Your task to perform on an android device: How do I get to the nearest Sprint Store? Image 0: 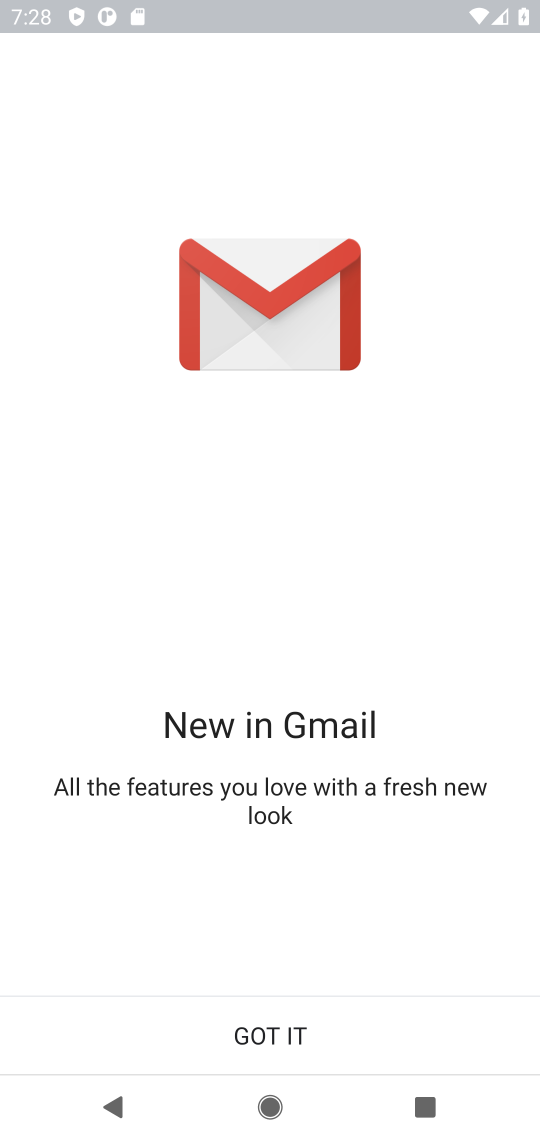
Step 0: press home button
Your task to perform on an android device: How do I get to the nearest Sprint Store? Image 1: 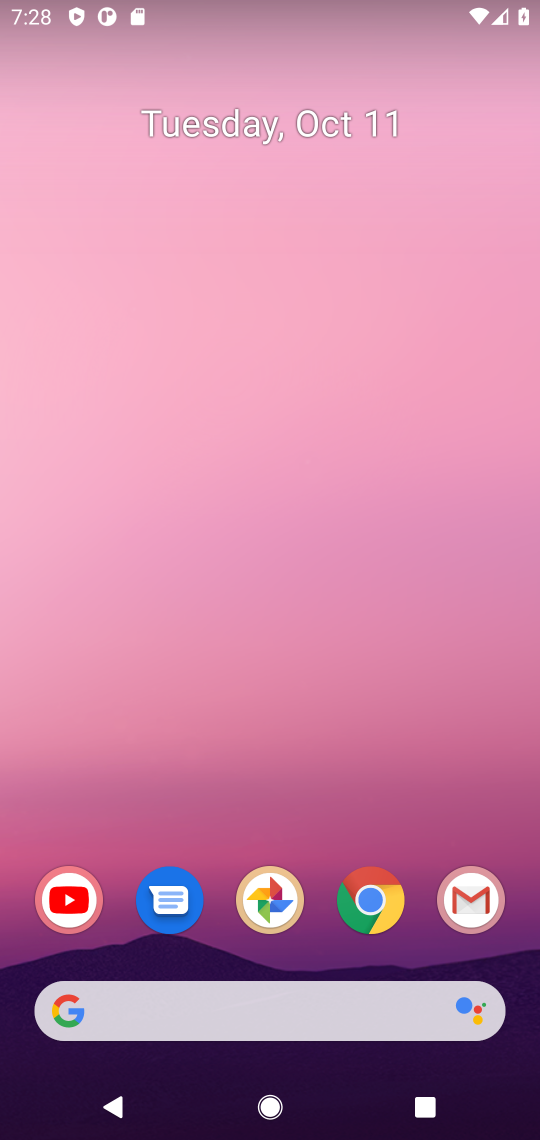
Step 1: click (366, 910)
Your task to perform on an android device: How do I get to the nearest Sprint Store? Image 2: 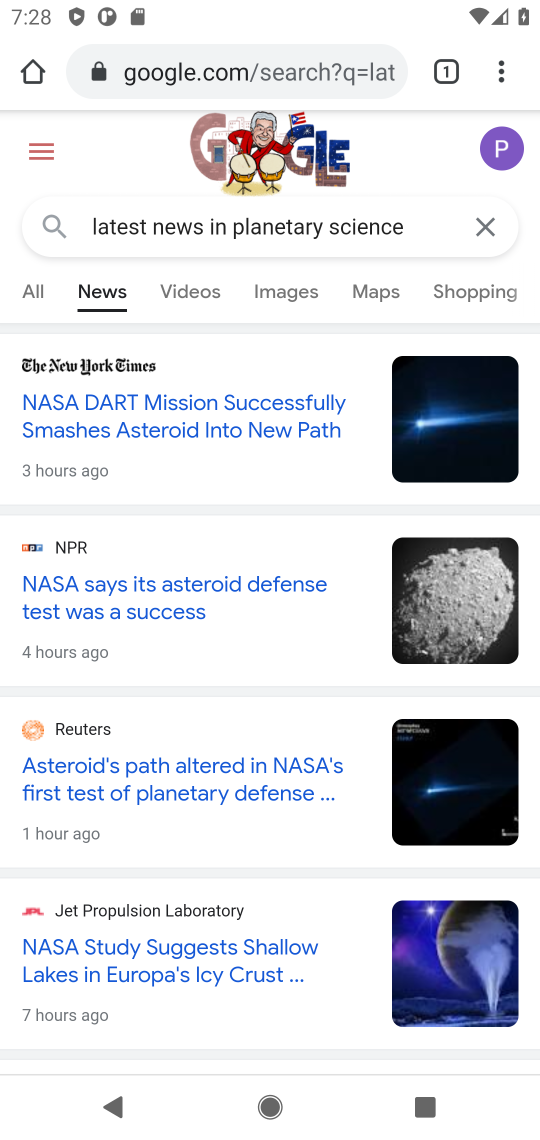
Step 2: click (277, 79)
Your task to perform on an android device: How do I get to the nearest Sprint Store? Image 3: 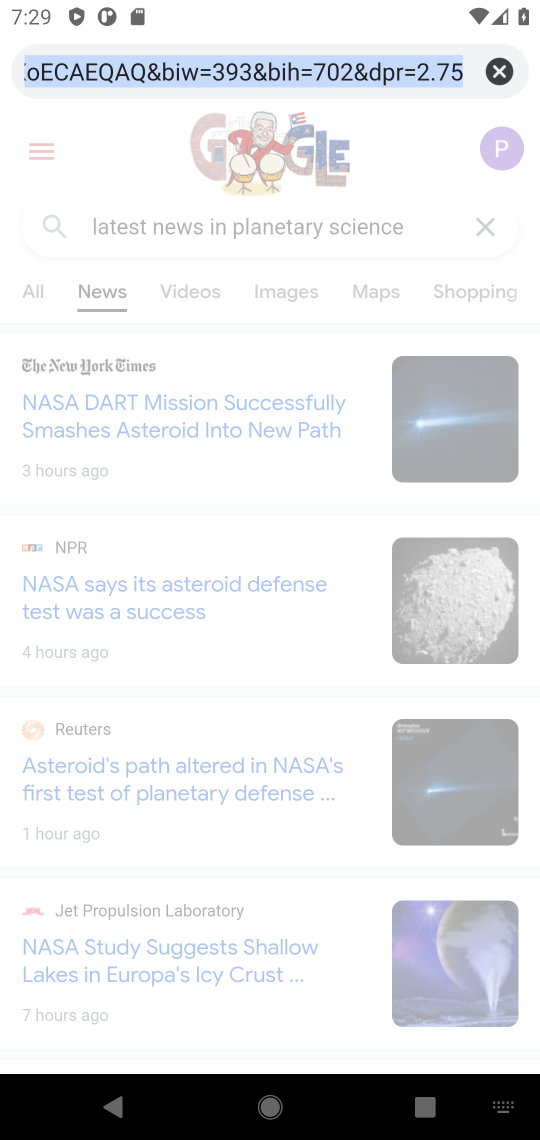
Step 3: type "directions to nearest Sprint Store"
Your task to perform on an android device: How do I get to the nearest Sprint Store? Image 4: 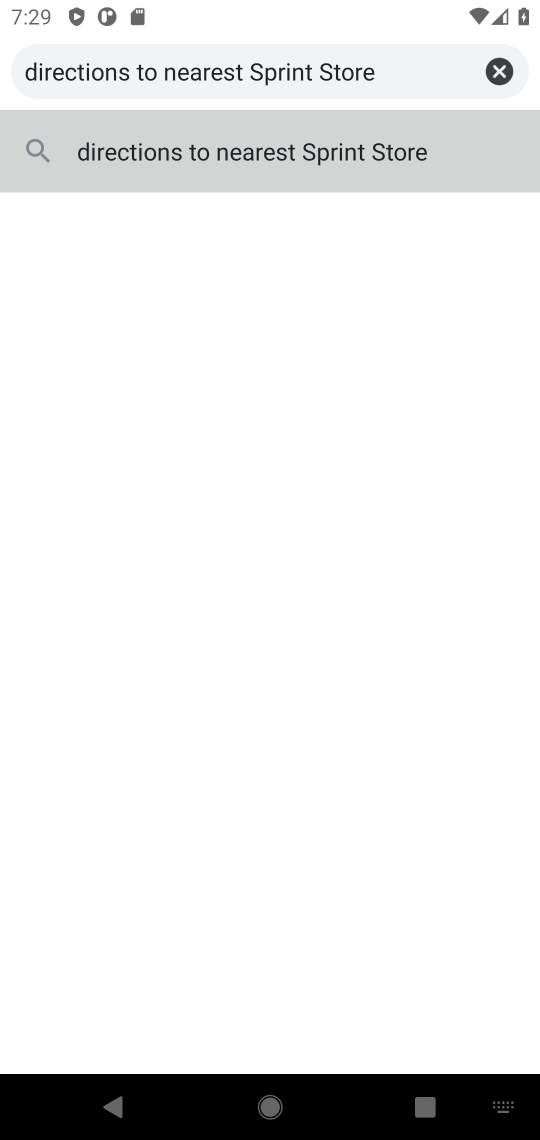
Step 4: click (398, 164)
Your task to perform on an android device: How do I get to the nearest Sprint Store? Image 5: 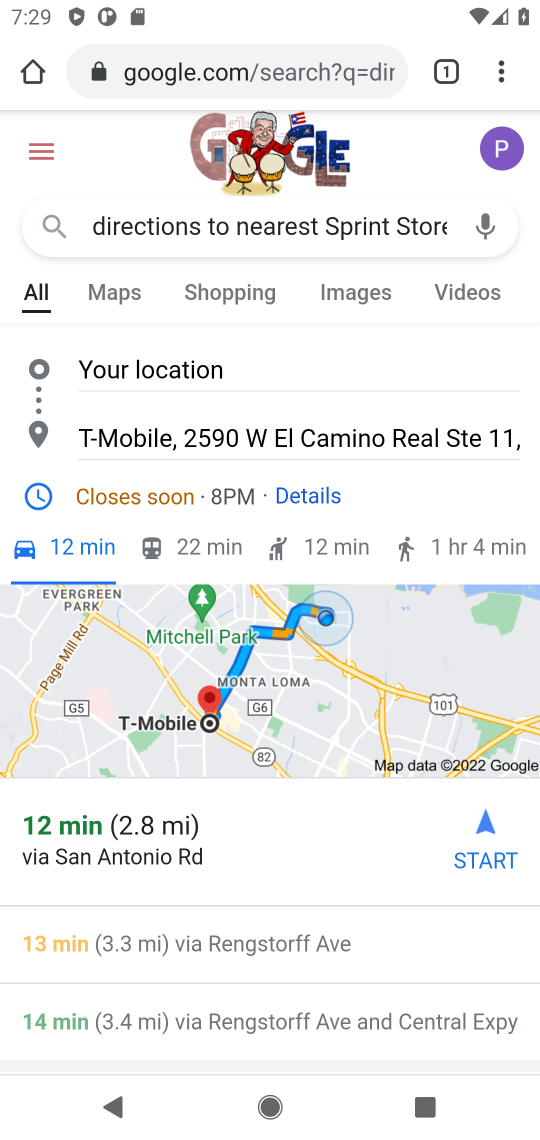
Step 5: click (431, 748)
Your task to perform on an android device: How do I get to the nearest Sprint Store? Image 6: 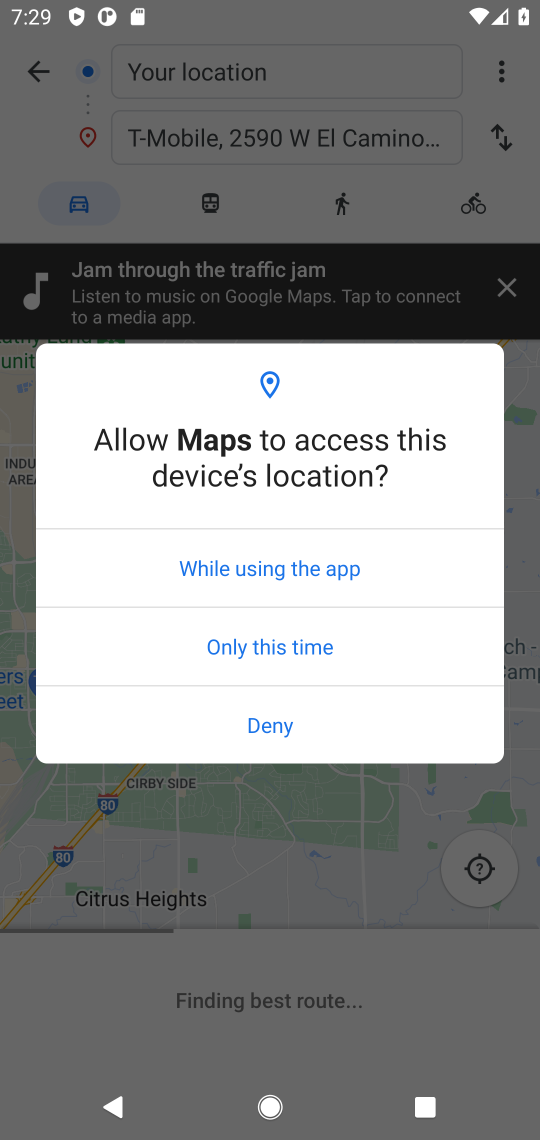
Step 6: task complete